Your task to perform on an android device: Open wifi settings Image 0: 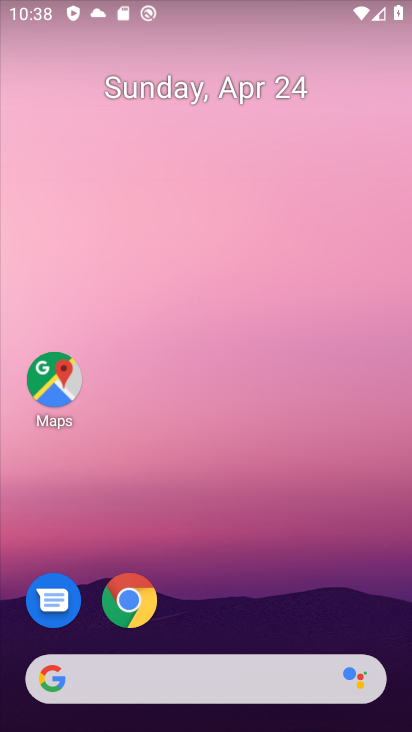
Step 0: click (150, 1)
Your task to perform on an android device: Open wifi settings Image 1: 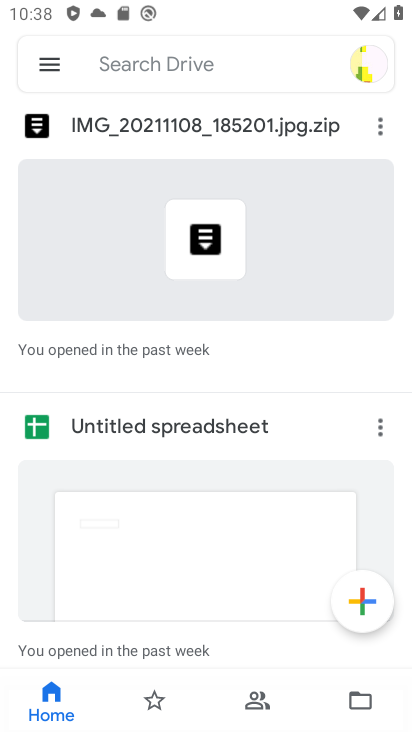
Step 1: press home button
Your task to perform on an android device: Open wifi settings Image 2: 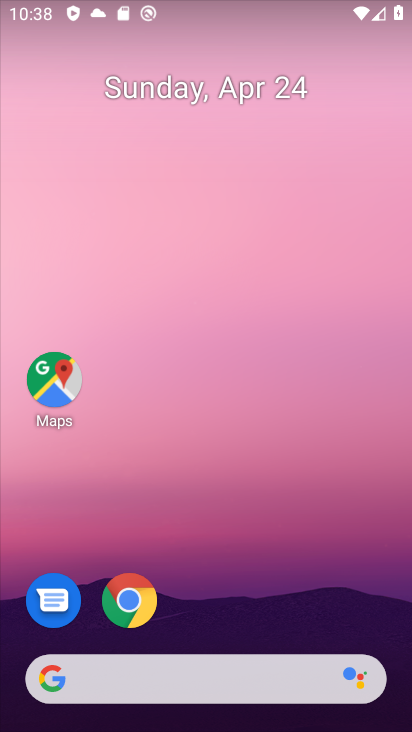
Step 2: drag from (281, 547) to (206, 148)
Your task to perform on an android device: Open wifi settings Image 3: 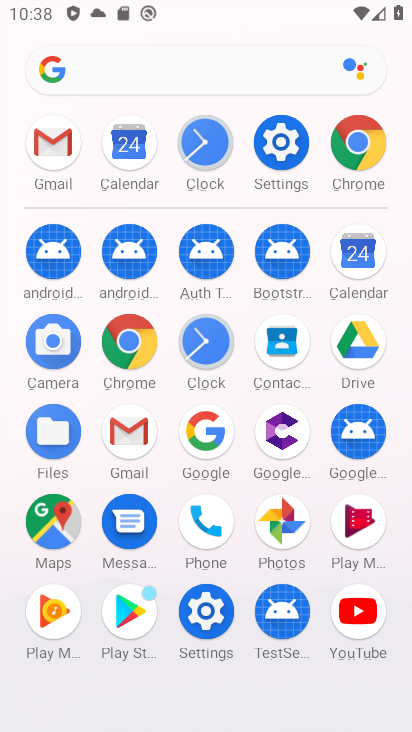
Step 3: click (284, 142)
Your task to perform on an android device: Open wifi settings Image 4: 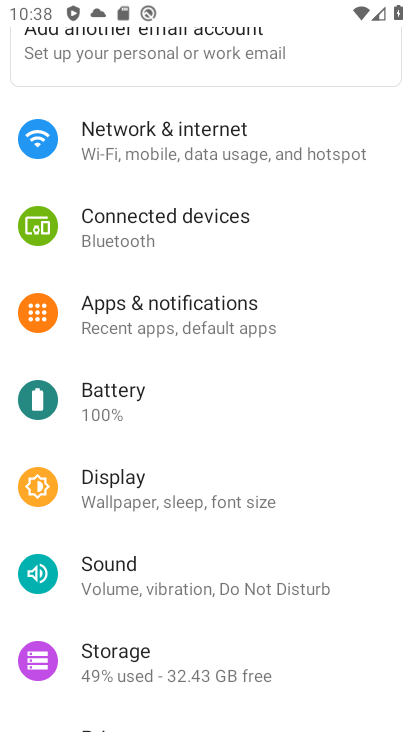
Step 4: click (162, 148)
Your task to perform on an android device: Open wifi settings Image 5: 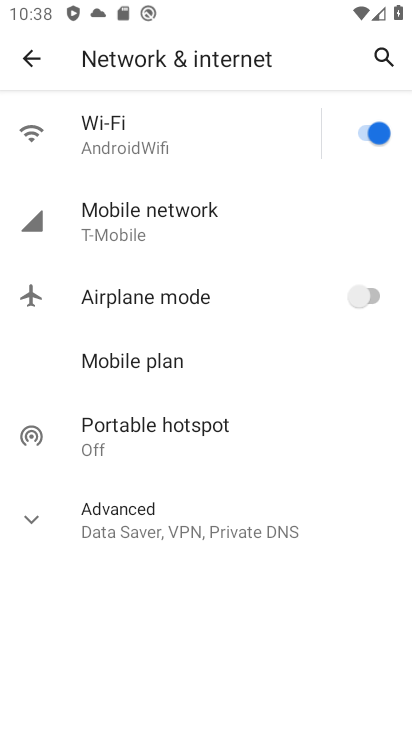
Step 5: click (122, 129)
Your task to perform on an android device: Open wifi settings Image 6: 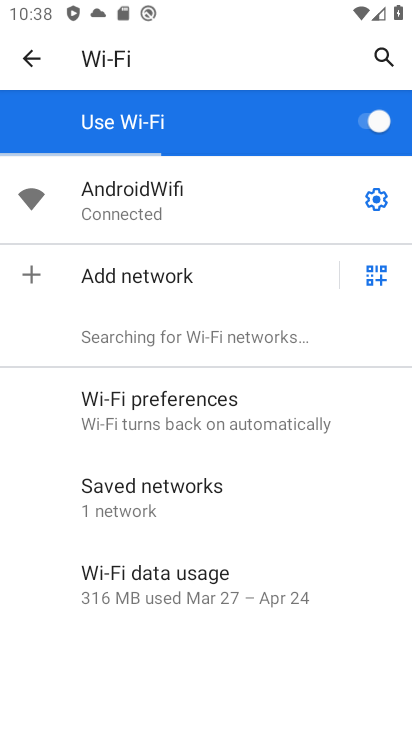
Step 6: task complete